Your task to perform on an android device: Open Chrome and go to settings Image 0: 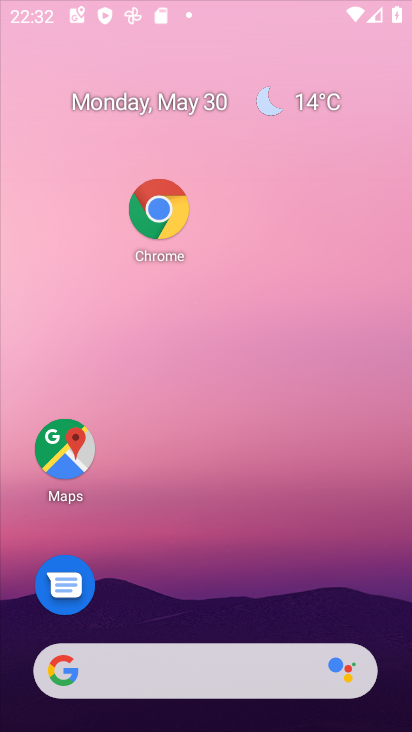
Step 0: drag from (246, 613) to (302, 5)
Your task to perform on an android device: Open Chrome and go to settings Image 1: 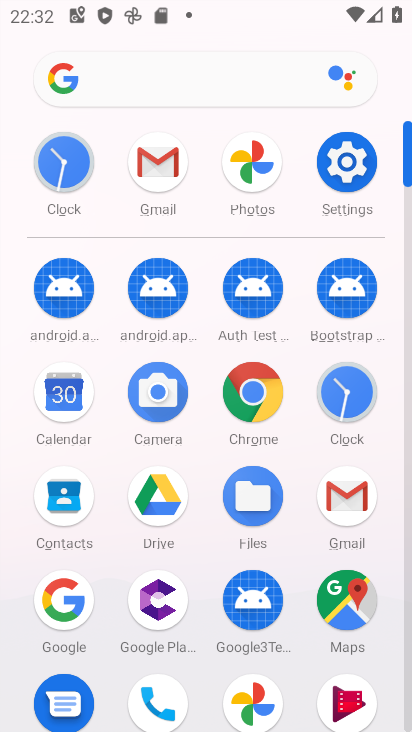
Step 1: click (262, 390)
Your task to perform on an android device: Open Chrome and go to settings Image 2: 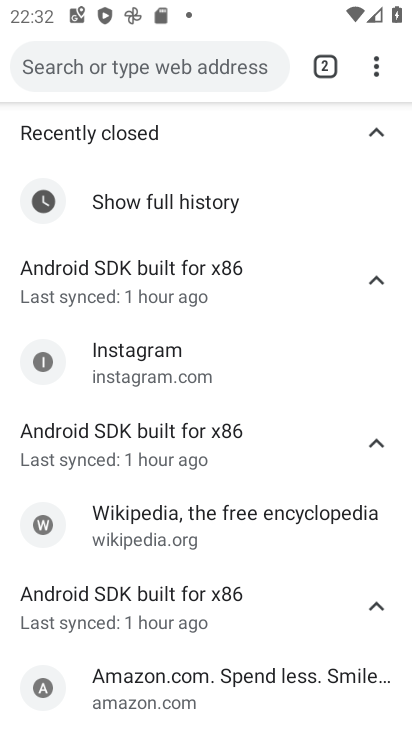
Step 2: click (376, 55)
Your task to perform on an android device: Open Chrome and go to settings Image 3: 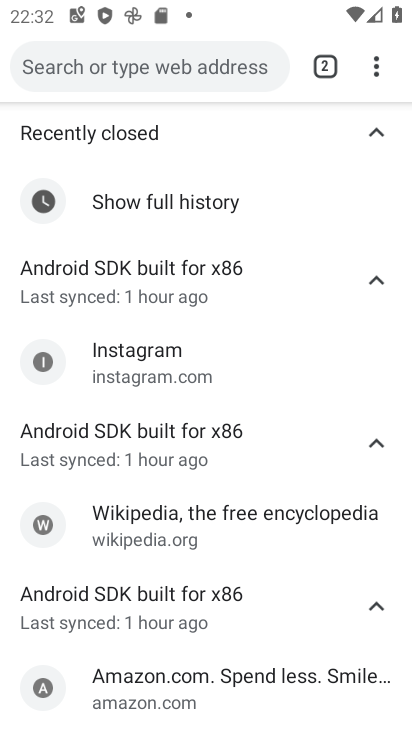
Step 3: task complete